Your task to perform on an android device: search for starred emails in the gmail app Image 0: 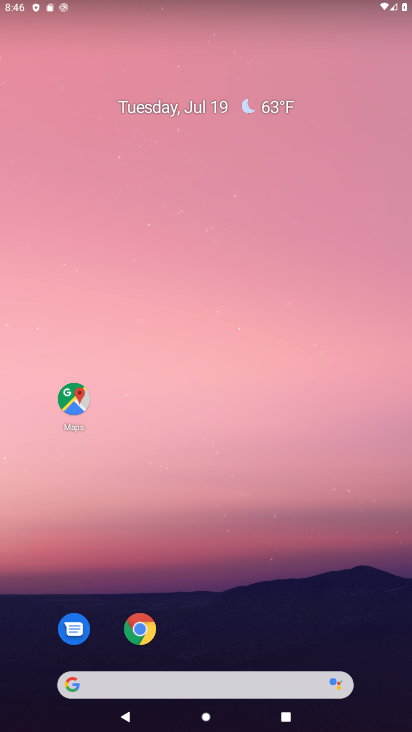
Step 0: drag from (202, 650) to (181, 0)
Your task to perform on an android device: search for starred emails in the gmail app Image 1: 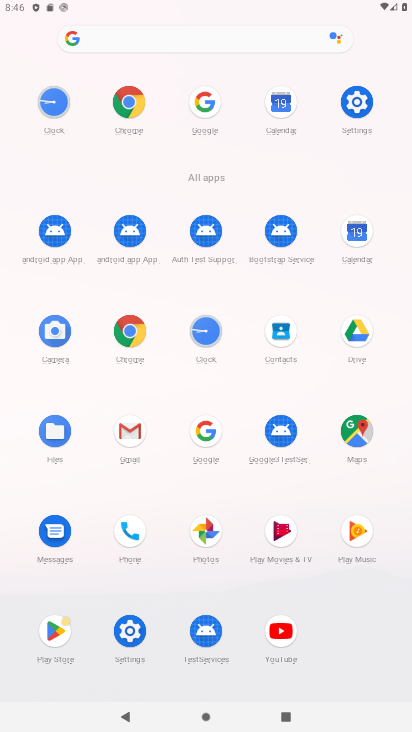
Step 1: click (130, 428)
Your task to perform on an android device: search for starred emails in the gmail app Image 2: 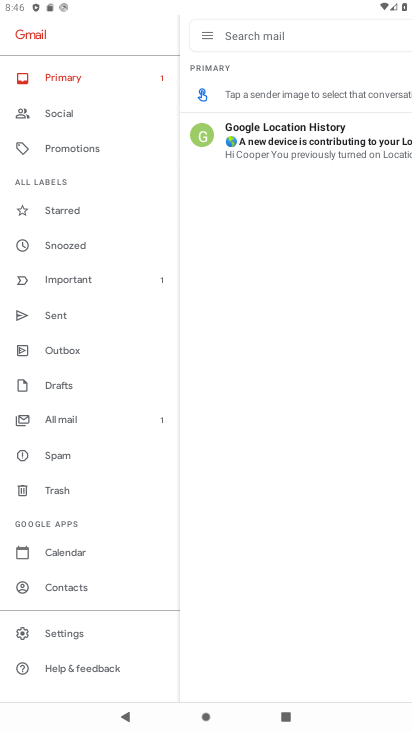
Step 2: click (63, 203)
Your task to perform on an android device: search for starred emails in the gmail app Image 3: 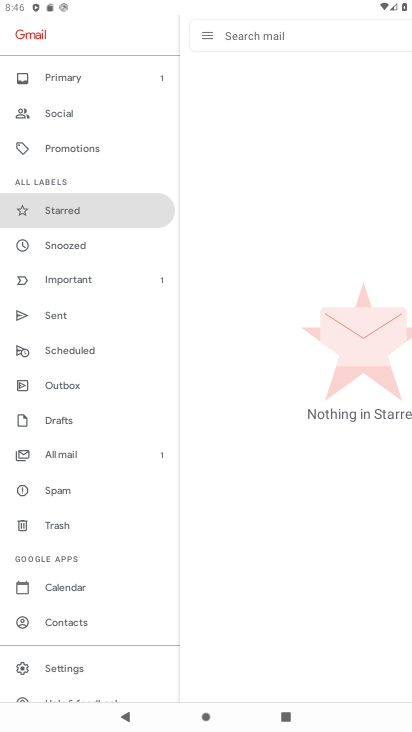
Step 3: task complete